Your task to perform on an android device: Open Chrome and go to the settings page Image 0: 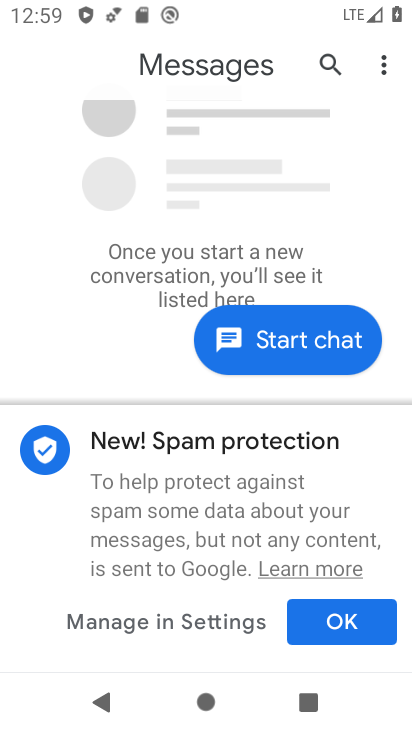
Step 0: press home button
Your task to perform on an android device: Open Chrome and go to the settings page Image 1: 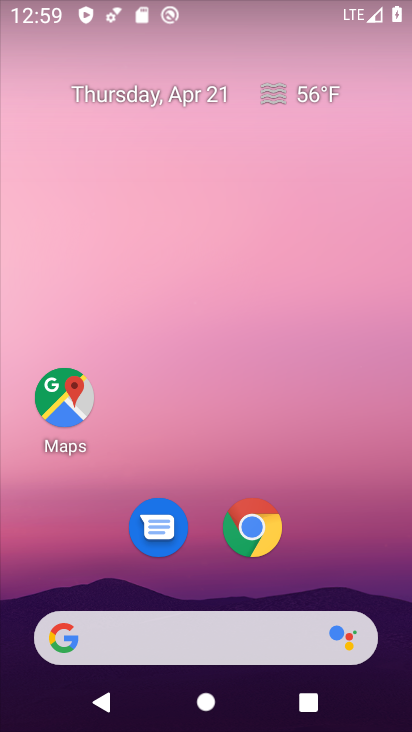
Step 1: drag from (191, 536) to (293, 51)
Your task to perform on an android device: Open Chrome and go to the settings page Image 2: 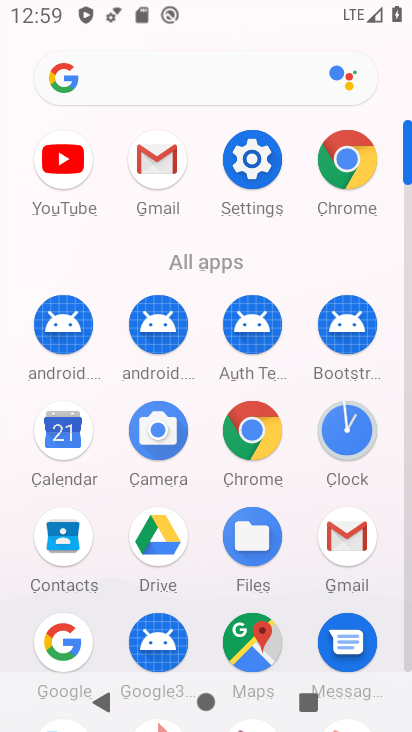
Step 2: click (352, 161)
Your task to perform on an android device: Open Chrome and go to the settings page Image 3: 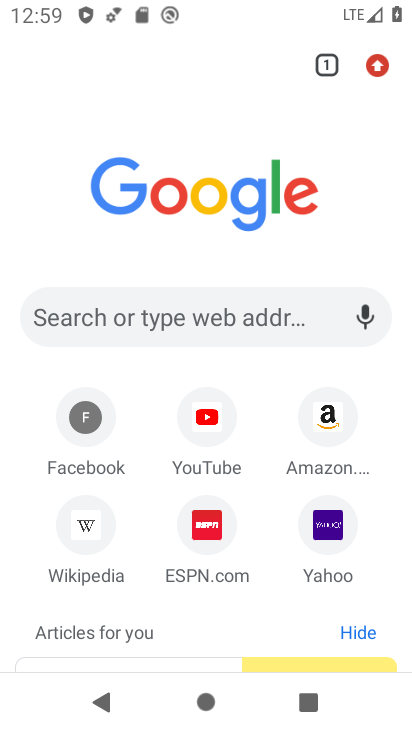
Step 3: click (371, 67)
Your task to perform on an android device: Open Chrome and go to the settings page Image 4: 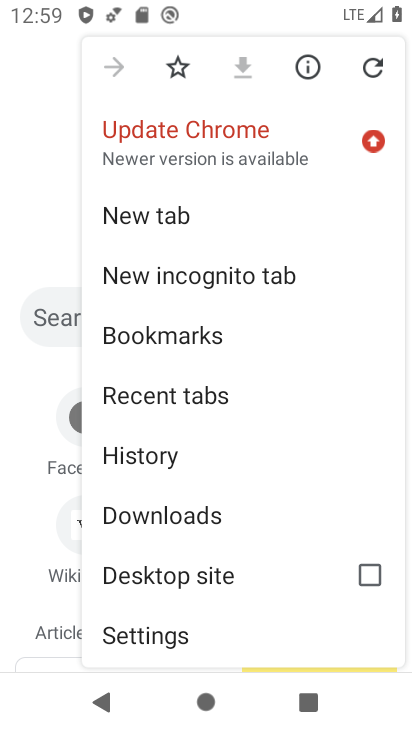
Step 4: click (150, 626)
Your task to perform on an android device: Open Chrome and go to the settings page Image 5: 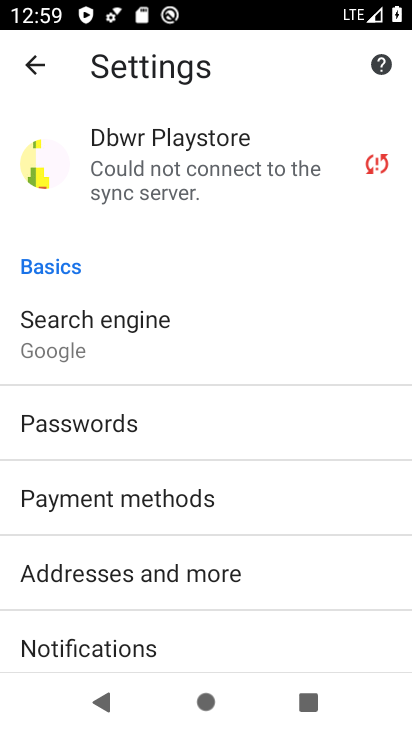
Step 5: task complete